Your task to perform on an android device: check battery use Image 0: 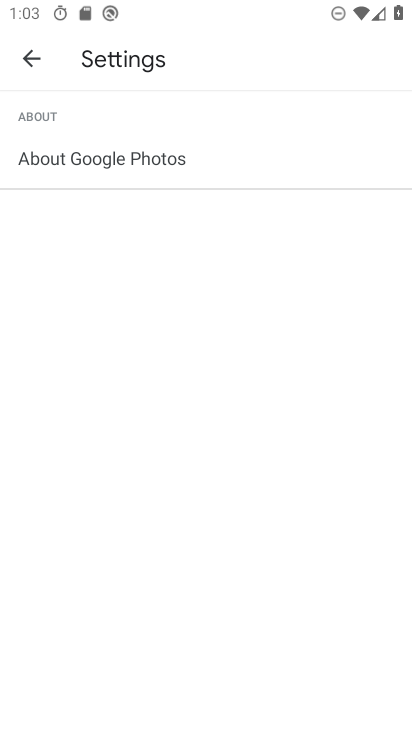
Step 0: press home button
Your task to perform on an android device: check battery use Image 1: 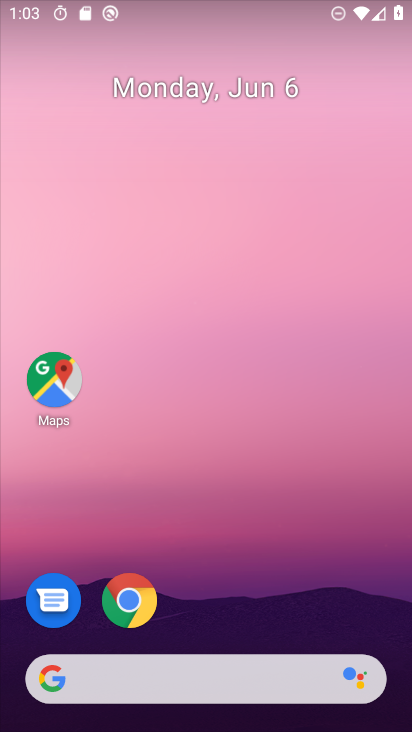
Step 1: drag from (214, 627) to (218, 128)
Your task to perform on an android device: check battery use Image 2: 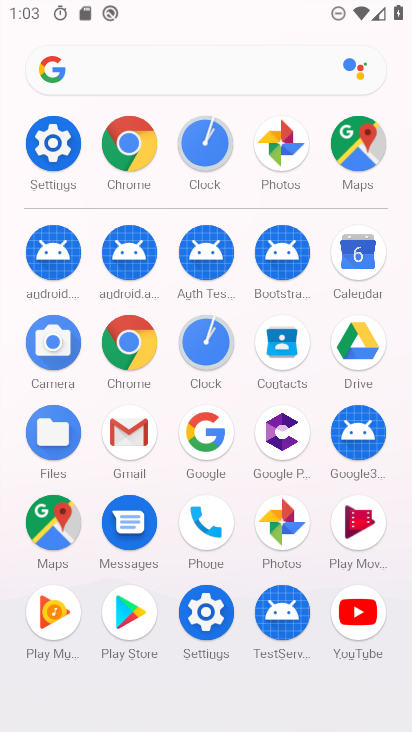
Step 2: click (45, 154)
Your task to perform on an android device: check battery use Image 3: 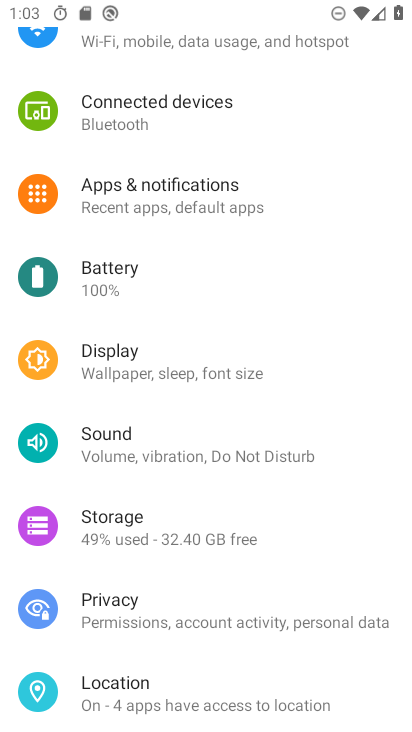
Step 3: click (151, 256)
Your task to perform on an android device: check battery use Image 4: 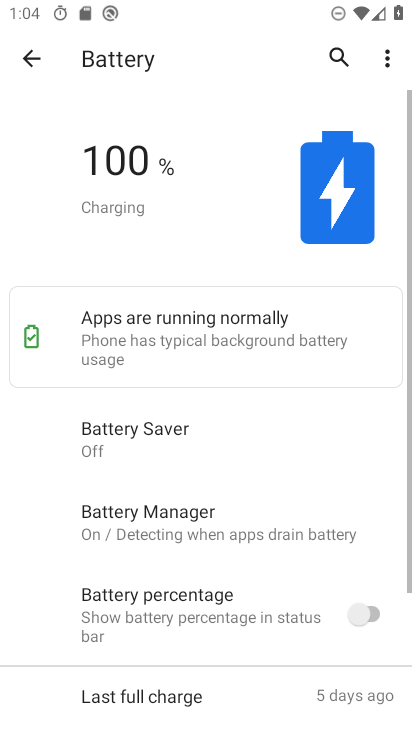
Step 4: click (387, 58)
Your task to perform on an android device: check battery use Image 5: 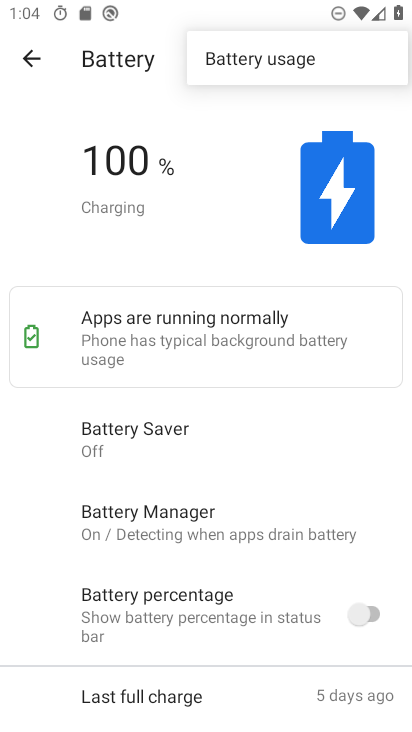
Step 5: click (293, 58)
Your task to perform on an android device: check battery use Image 6: 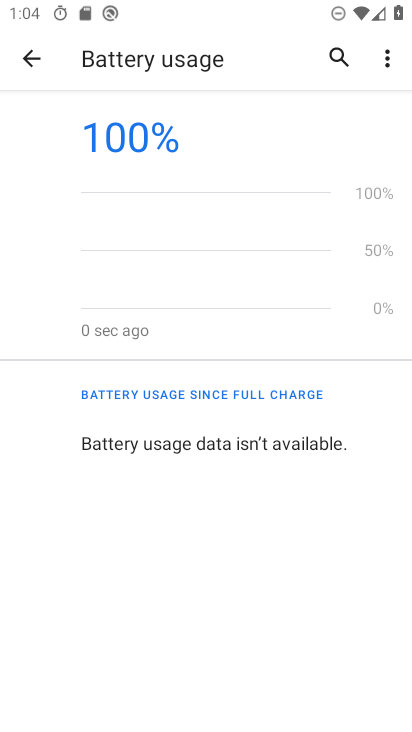
Step 6: task complete